Your task to perform on an android device: open a bookmark in the chrome app Image 0: 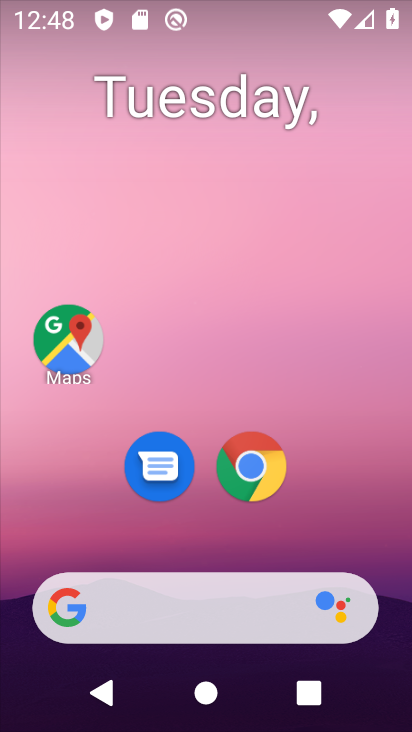
Step 0: click (268, 490)
Your task to perform on an android device: open a bookmark in the chrome app Image 1: 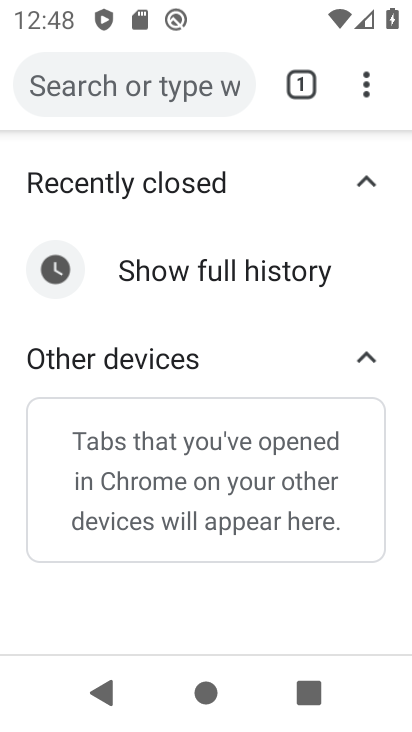
Step 1: click (375, 100)
Your task to perform on an android device: open a bookmark in the chrome app Image 2: 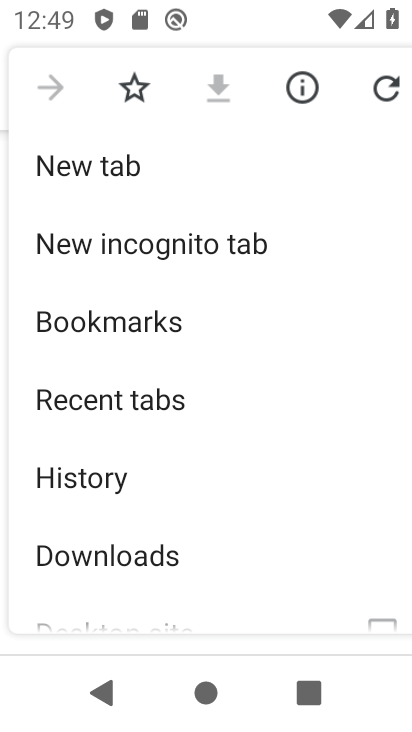
Step 2: click (145, 312)
Your task to perform on an android device: open a bookmark in the chrome app Image 3: 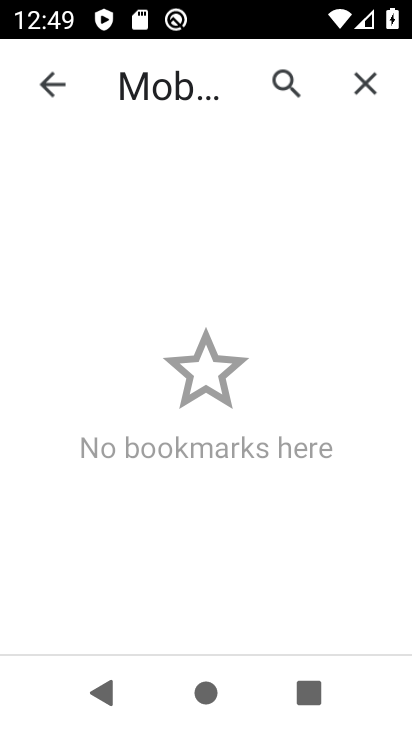
Step 3: task complete